Your task to perform on an android device: Do I have any events today? Image 0: 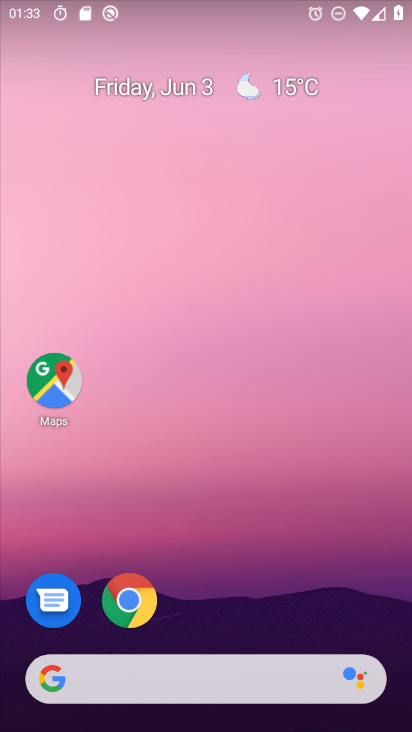
Step 0: drag from (214, 573) to (177, 91)
Your task to perform on an android device: Do I have any events today? Image 1: 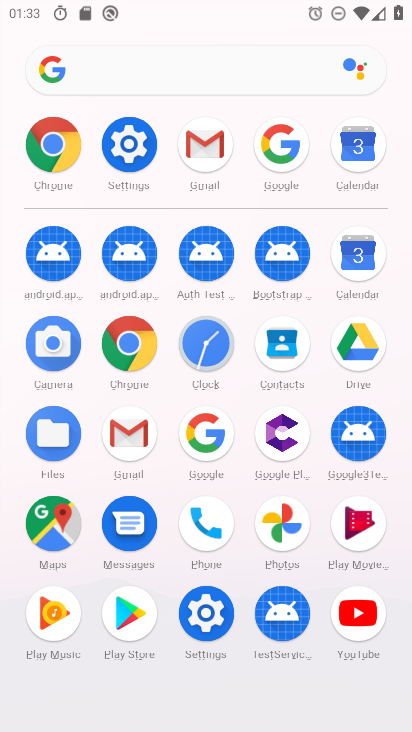
Step 1: click (354, 254)
Your task to perform on an android device: Do I have any events today? Image 2: 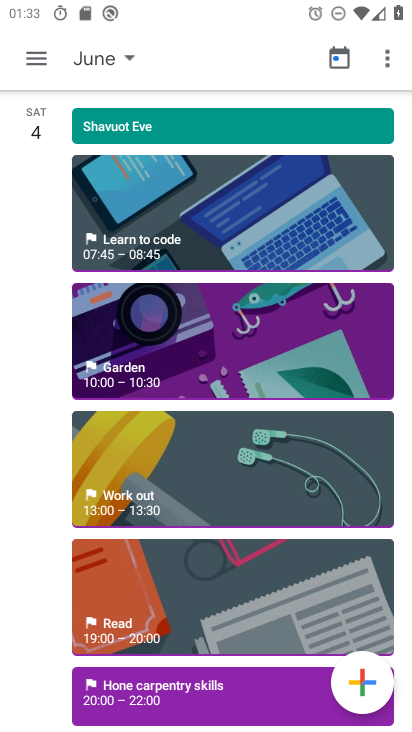
Step 2: click (321, 149)
Your task to perform on an android device: Do I have any events today? Image 3: 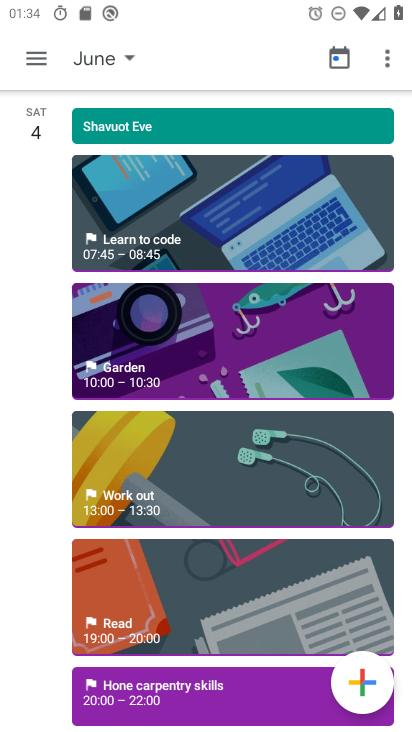
Step 3: drag from (321, 157) to (337, 437)
Your task to perform on an android device: Do I have any events today? Image 4: 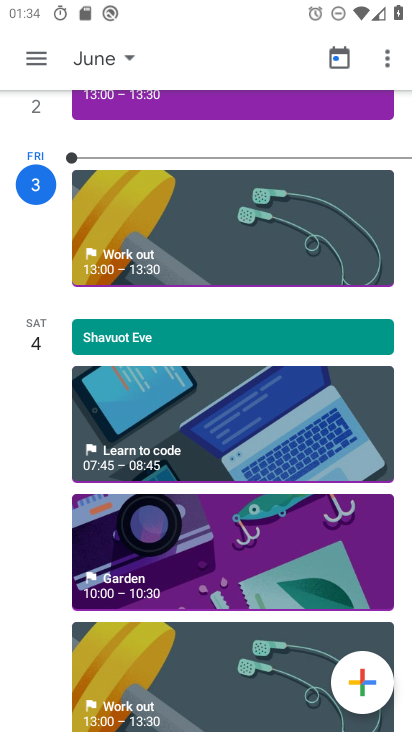
Step 4: click (107, 64)
Your task to perform on an android device: Do I have any events today? Image 5: 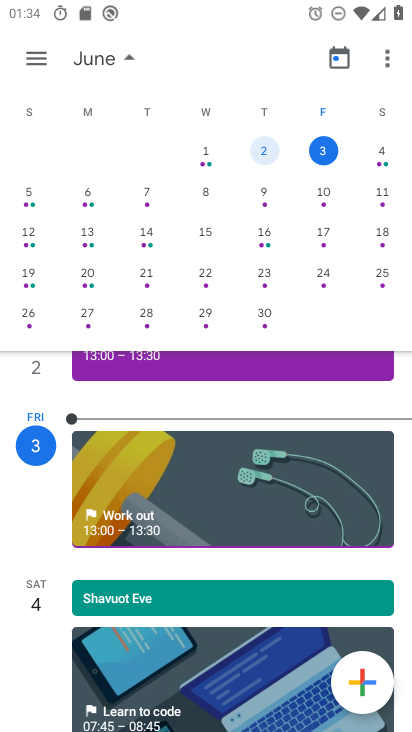
Step 5: click (323, 156)
Your task to perform on an android device: Do I have any events today? Image 6: 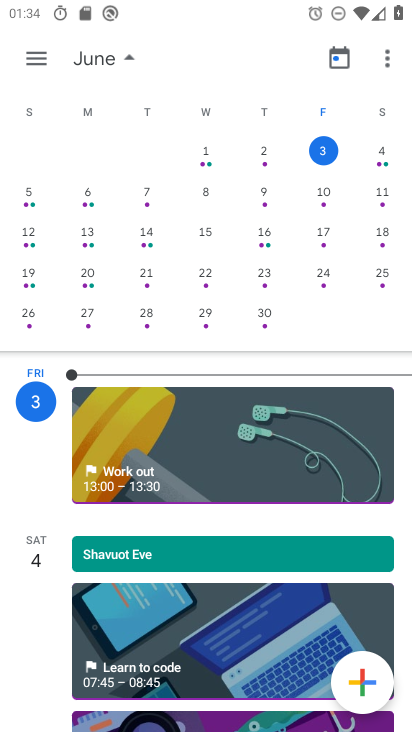
Step 6: task complete